Your task to perform on an android device: turn on priority inbox in the gmail app Image 0: 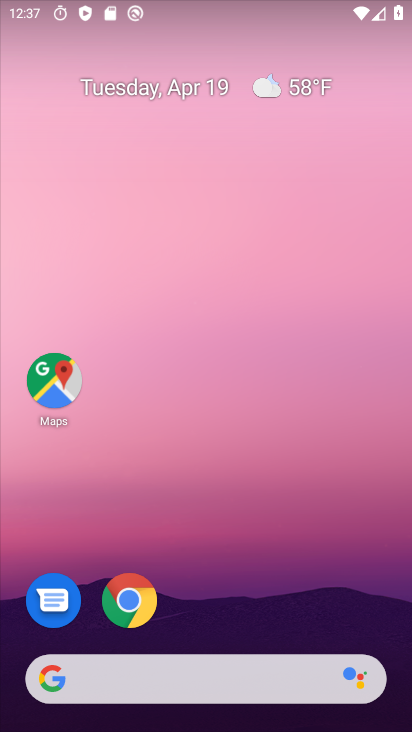
Step 0: drag from (205, 706) to (252, 279)
Your task to perform on an android device: turn on priority inbox in the gmail app Image 1: 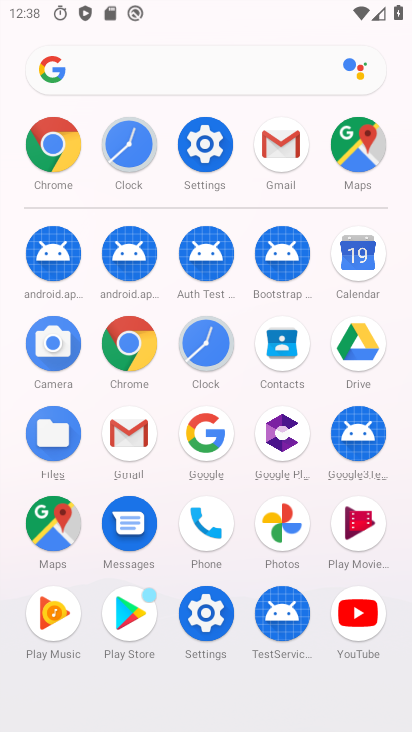
Step 1: click (283, 148)
Your task to perform on an android device: turn on priority inbox in the gmail app Image 2: 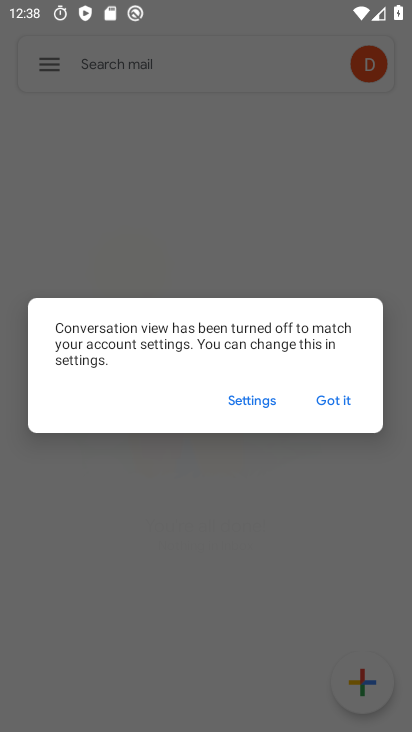
Step 2: click (326, 396)
Your task to perform on an android device: turn on priority inbox in the gmail app Image 3: 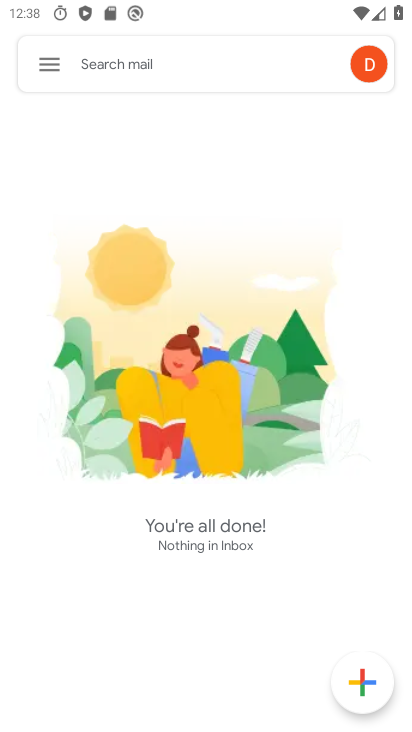
Step 3: click (52, 61)
Your task to perform on an android device: turn on priority inbox in the gmail app Image 4: 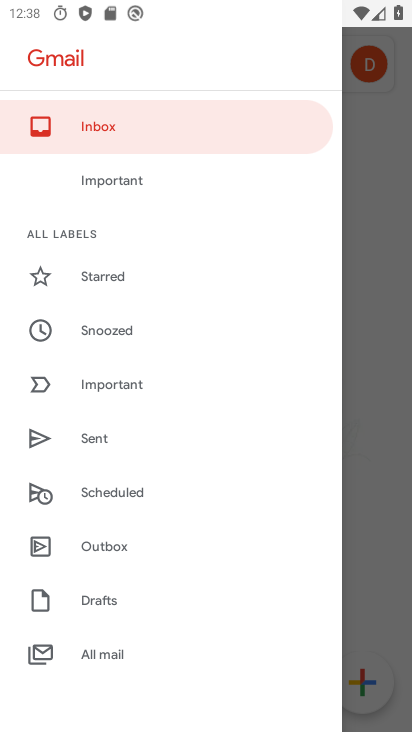
Step 4: drag from (71, 608) to (229, 245)
Your task to perform on an android device: turn on priority inbox in the gmail app Image 5: 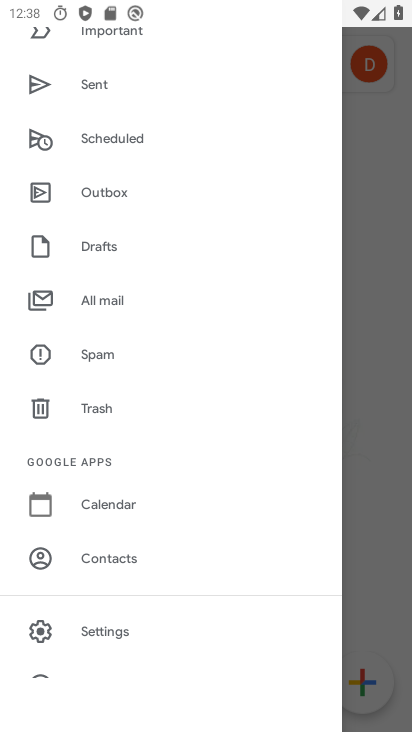
Step 5: click (111, 628)
Your task to perform on an android device: turn on priority inbox in the gmail app Image 6: 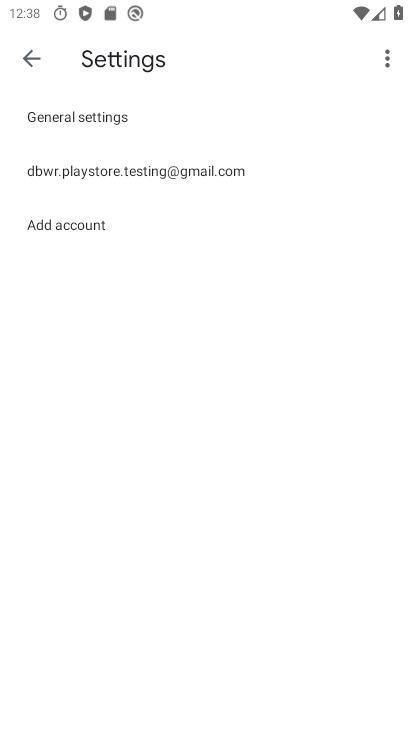
Step 6: click (125, 177)
Your task to perform on an android device: turn on priority inbox in the gmail app Image 7: 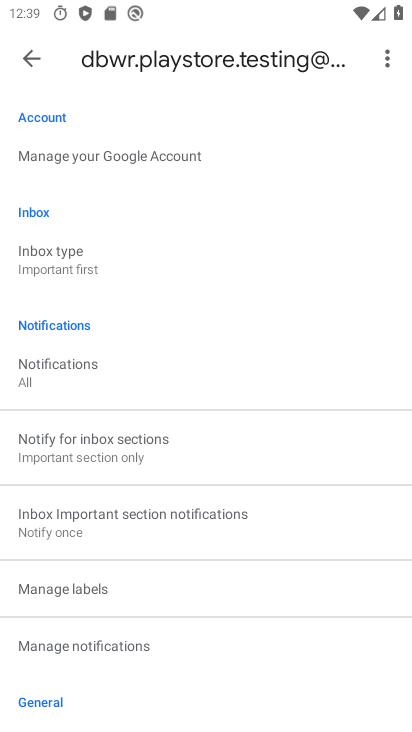
Step 7: click (69, 249)
Your task to perform on an android device: turn on priority inbox in the gmail app Image 8: 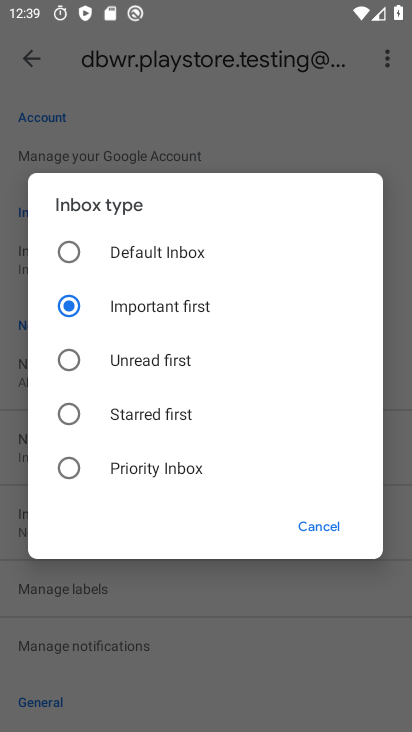
Step 8: click (175, 458)
Your task to perform on an android device: turn on priority inbox in the gmail app Image 9: 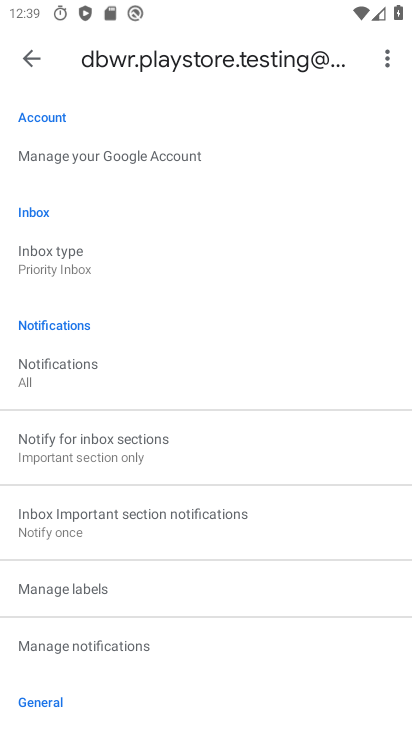
Step 9: task complete